Your task to perform on an android device: Show me productivity apps on the Play Store Image 0: 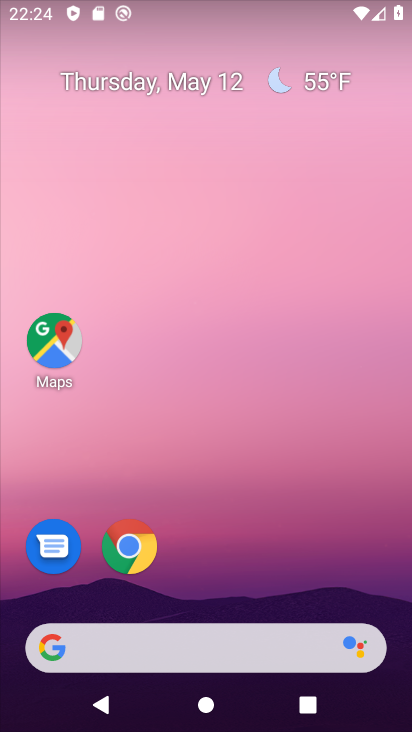
Step 0: drag from (169, 603) to (158, 211)
Your task to perform on an android device: Show me productivity apps on the Play Store Image 1: 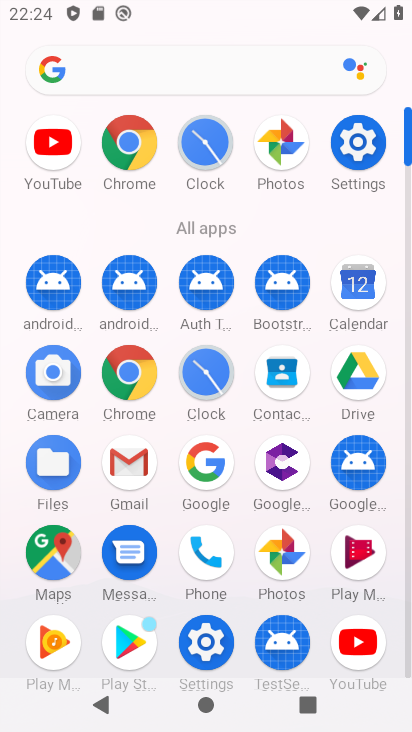
Step 1: click (123, 647)
Your task to perform on an android device: Show me productivity apps on the Play Store Image 2: 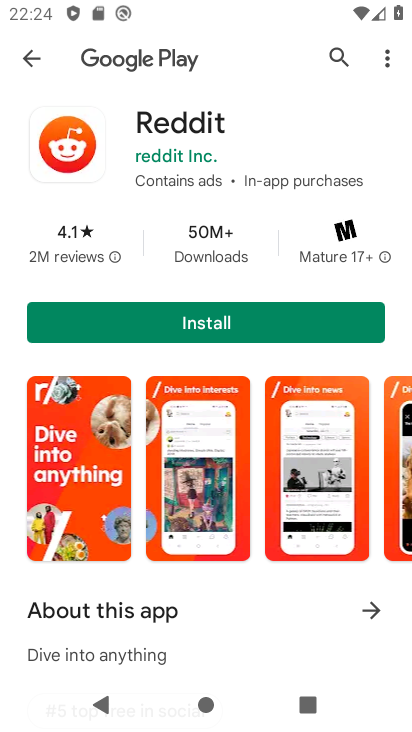
Step 2: click (23, 58)
Your task to perform on an android device: Show me productivity apps on the Play Store Image 3: 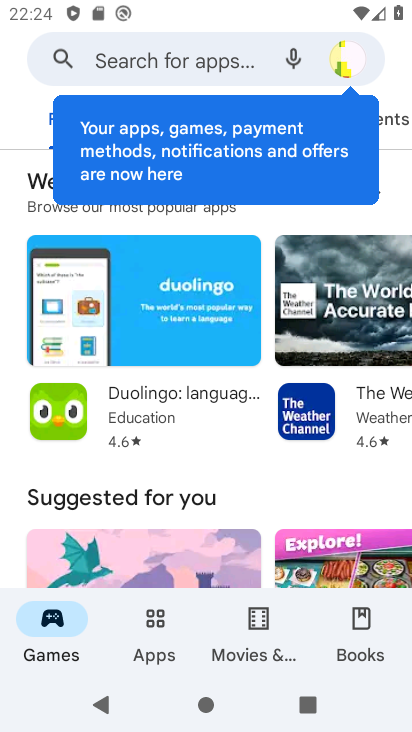
Step 3: click (146, 636)
Your task to perform on an android device: Show me productivity apps on the Play Store Image 4: 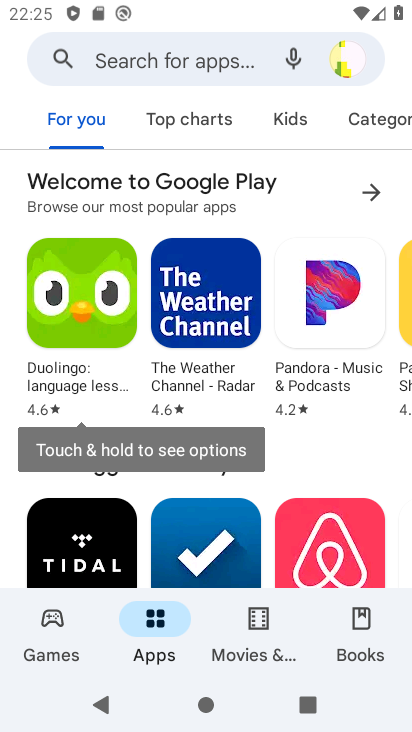
Step 4: click (361, 123)
Your task to perform on an android device: Show me productivity apps on the Play Store Image 5: 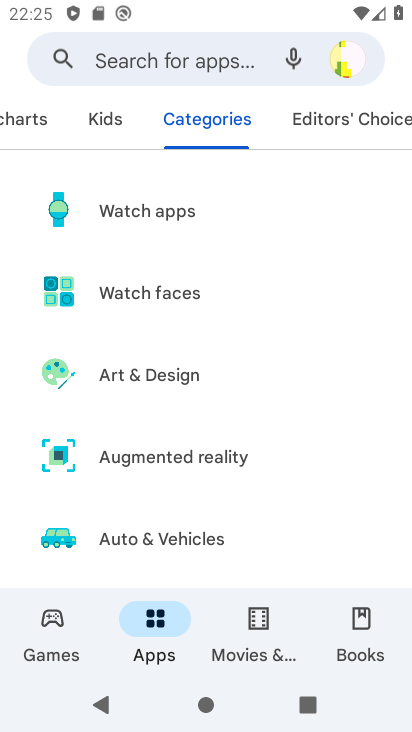
Step 5: drag from (214, 531) to (248, 131)
Your task to perform on an android device: Show me productivity apps on the Play Store Image 6: 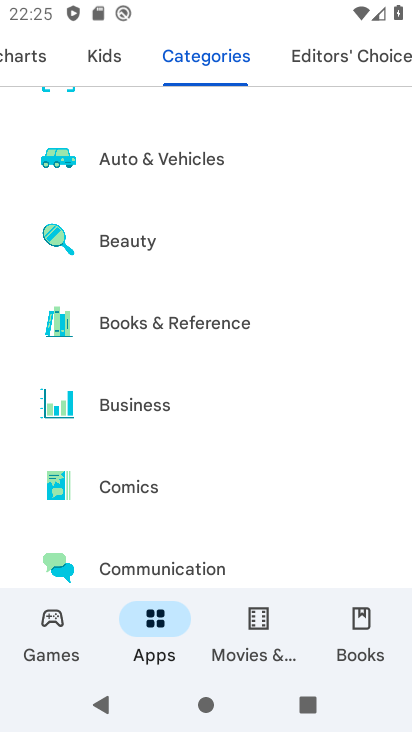
Step 6: drag from (147, 469) to (160, 202)
Your task to perform on an android device: Show me productivity apps on the Play Store Image 7: 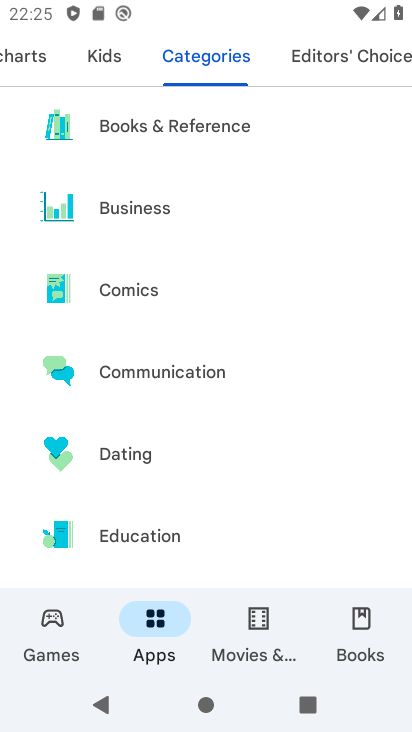
Step 7: drag from (202, 535) to (211, 132)
Your task to perform on an android device: Show me productivity apps on the Play Store Image 8: 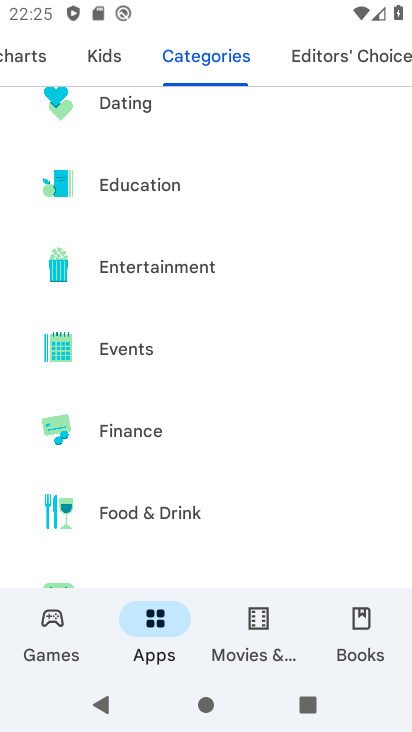
Step 8: drag from (180, 541) to (229, 172)
Your task to perform on an android device: Show me productivity apps on the Play Store Image 9: 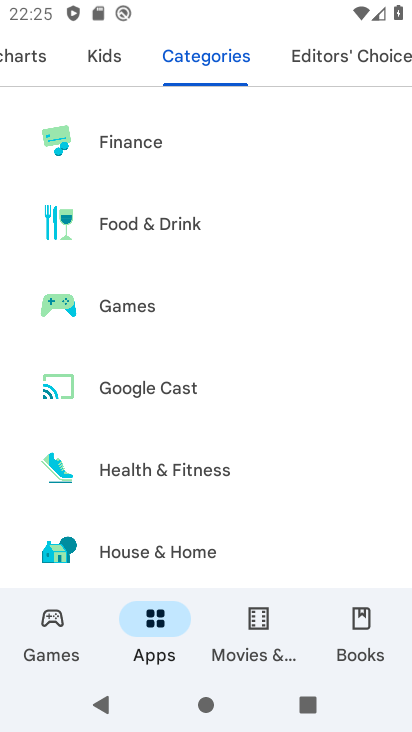
Step 9: drag from (161, 499) to (160, 127)
Your task to perform on an android device: Show me productivity apps on the Play Store Image 10: 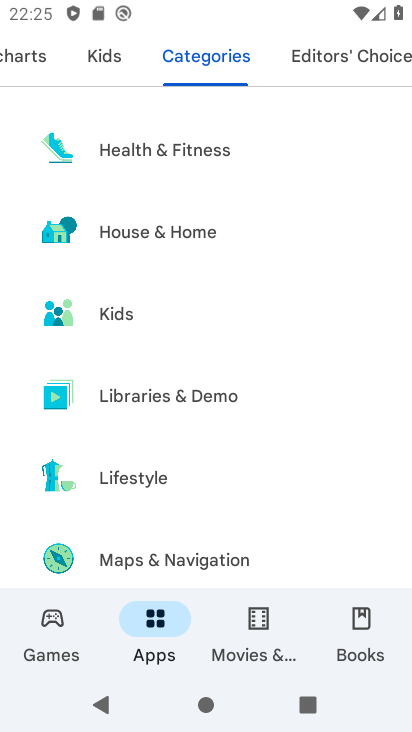
Step 10: drag from (178, 491) to (201, 163)
Your task to perform on an android device: Show me productivity apps on the Play Store Image 11: 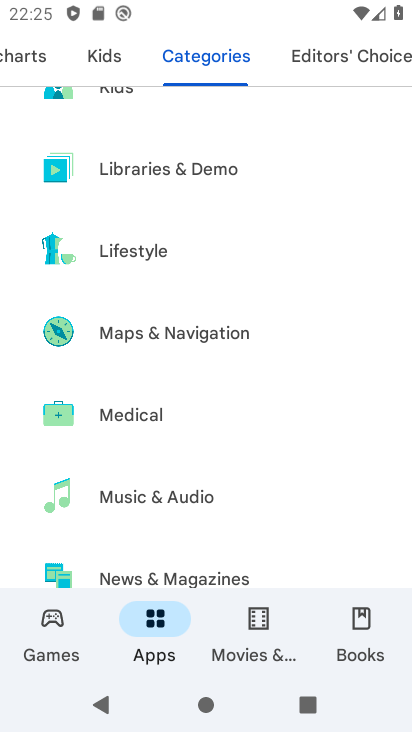
Step 11: drag from (193, 491) to (218, 163)
Your task to perform on an android device: Show me productivity apps on the Play Store Image 12: 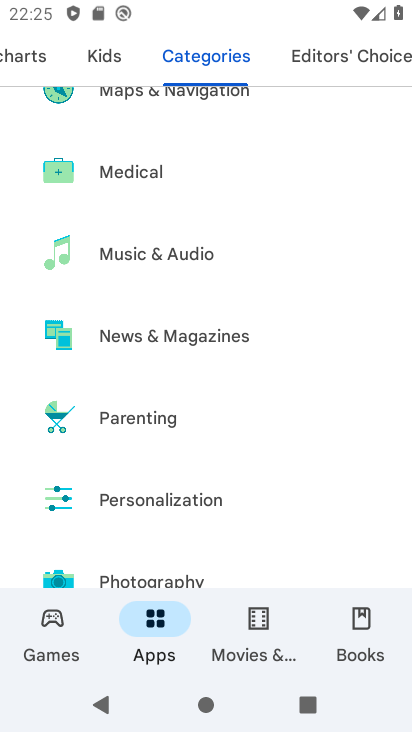
Step 12: drag from (170, 431) to (209, 246)
Your task to perform on an android device: Show me productivity apps on the Play Store Image 13: 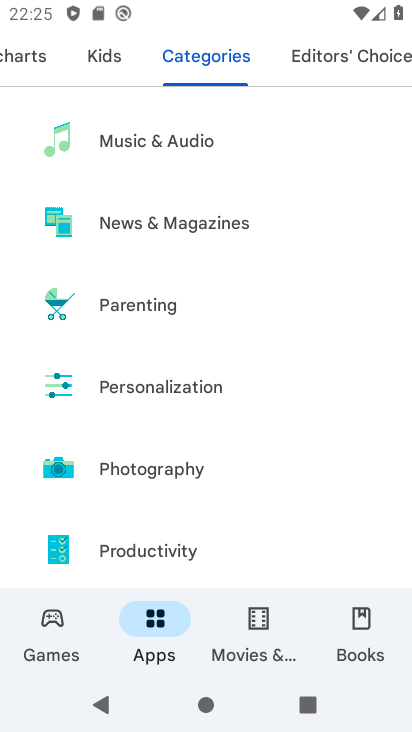
Step 13: click (174, 548)
Your task to perform on an android device: Show me productivity apps on the Play Store Image 14: 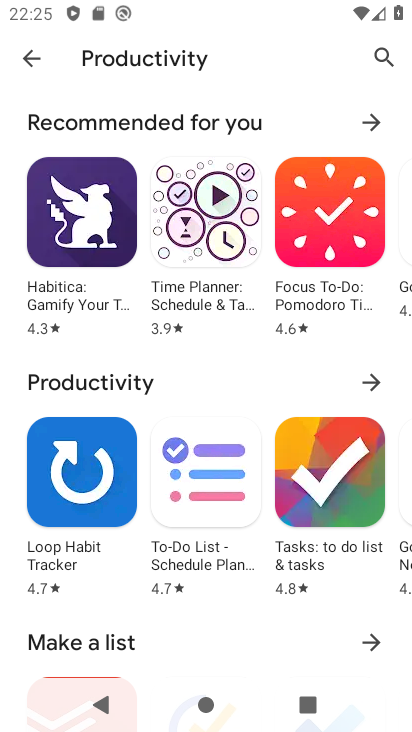
Step 14: task complete